Your task to perform on an android device: turn off location history Image 0: 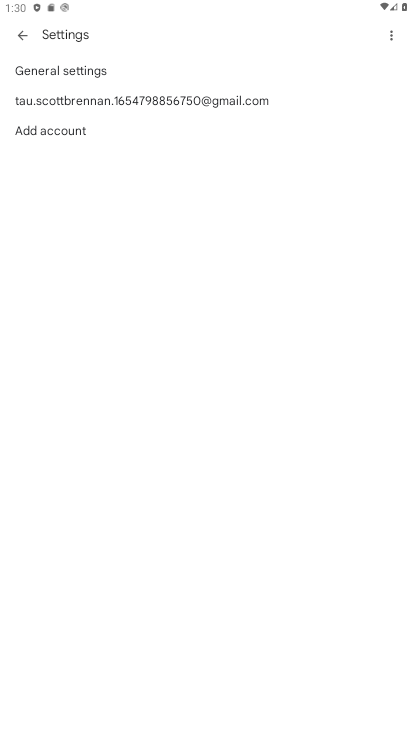
Step 0: task complete